Your task to perform on an android device: open wifi settings Image 0: 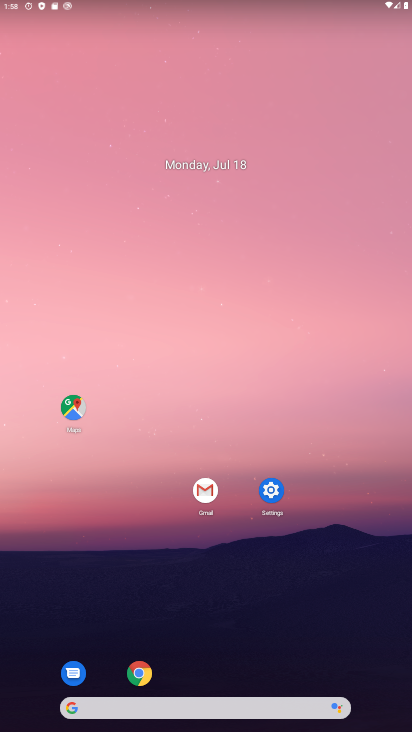
Step 0: click (268, 496)
Your task to perform on an android device: open wifi settings Image 1: 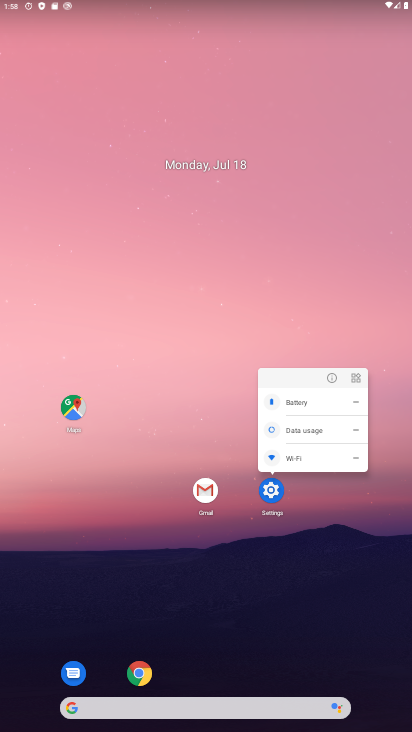
Step 1: click (271, 499)
Your task to perform on an android device: open wifi settings Image 2: 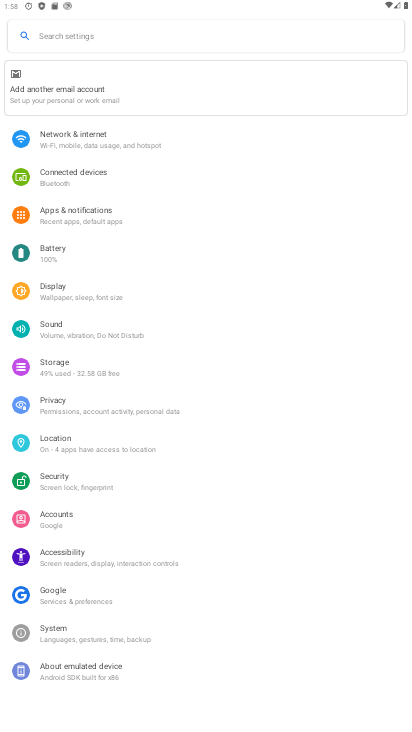
Step 2: click (87, 144)
Your task to perform on an android device: open wifi settings Image 3: 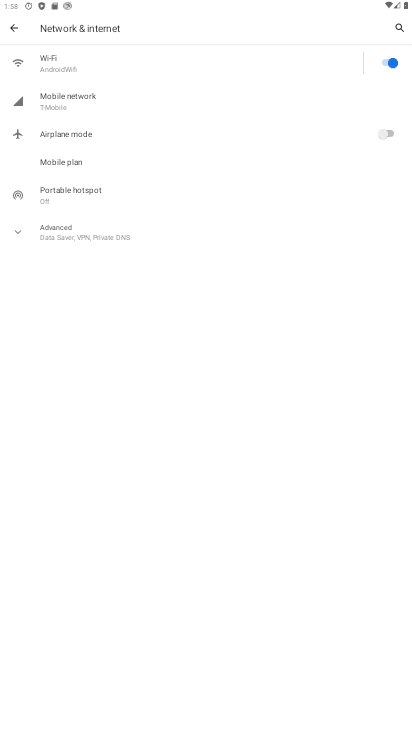
Step 3: click (86, 67)
Your task to perform on an android device: open wifi settings Image 4: 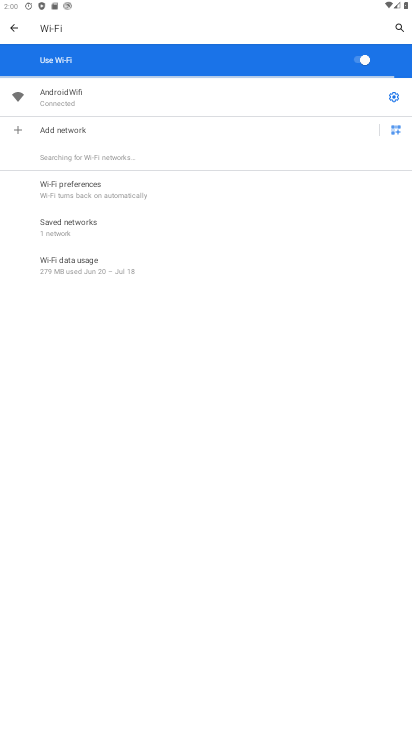
Step 4: task complete